Your task to perform on an android device: Open Google Maps Image 0: 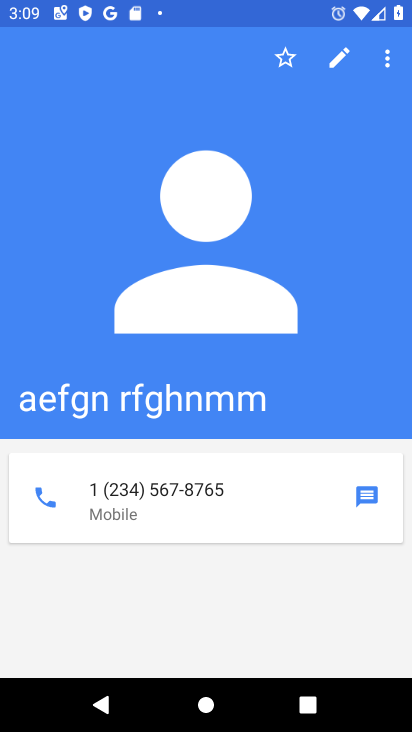
Step 0: press home button
Your task to perform on an android device: Open Google Maps Image 1: 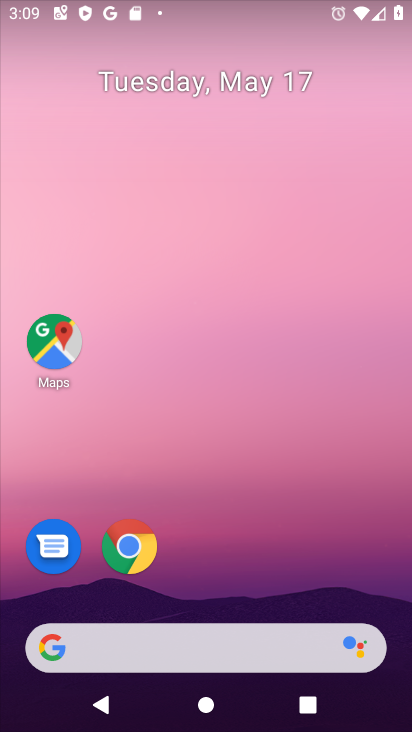
Step 1: click (52, 337)
Your task to perform on an android device: Open Google Maps Image 2: 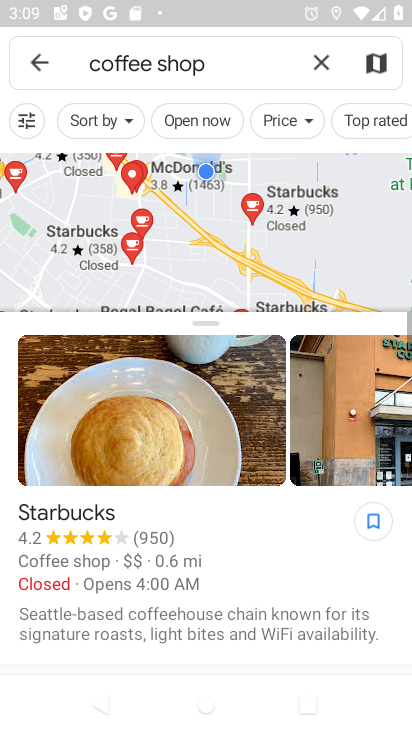
Step 2: click (28, 55)
Your task to perform on an android device: Open Google Maps Image 3: 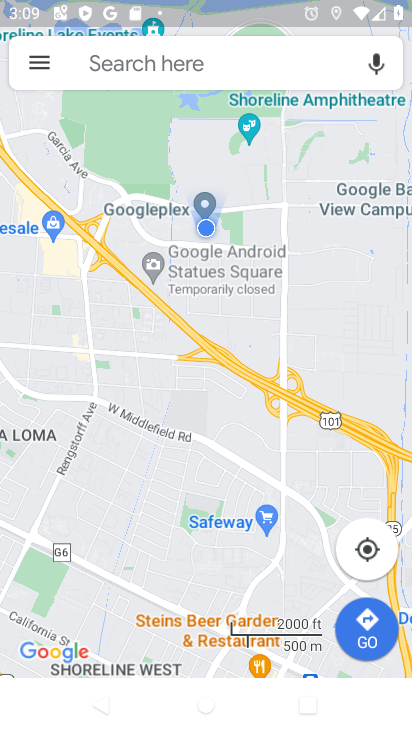
Step 3: task complete